Your task to perform on an android device: read, delete, or share a saved page in the chrome app Image 0: 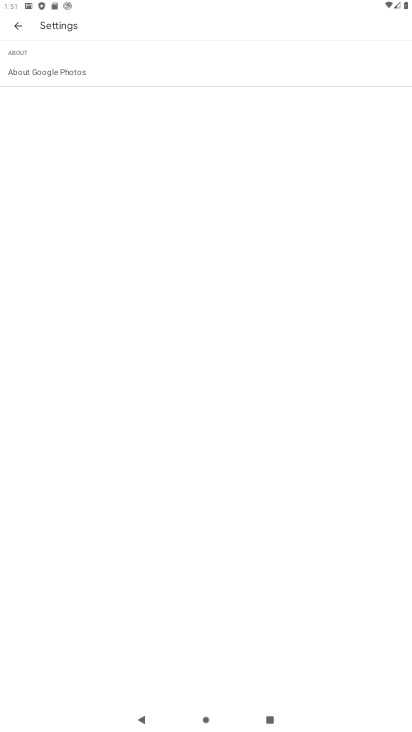
Step 0: press home button
Your task to perform on an android device: read, delete, or share a saved page in the chrome app Image 1: 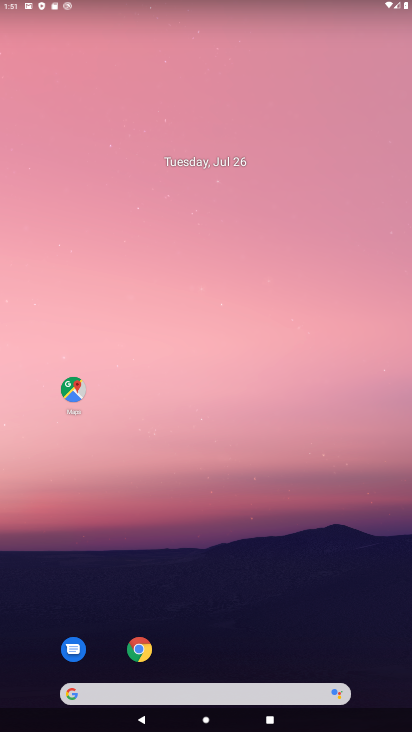
Step 1: click (136, 650)
Your task to perform on an android device: read, delete, or share a saved page in the chrome app Image 2: 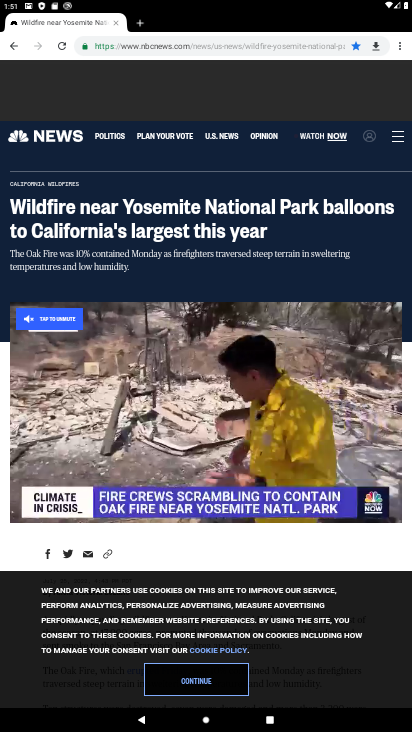
Step 2: click (401, 44)
Your task to perform on an android device: read, delete, or share a saved page in the chrome app Image 3: 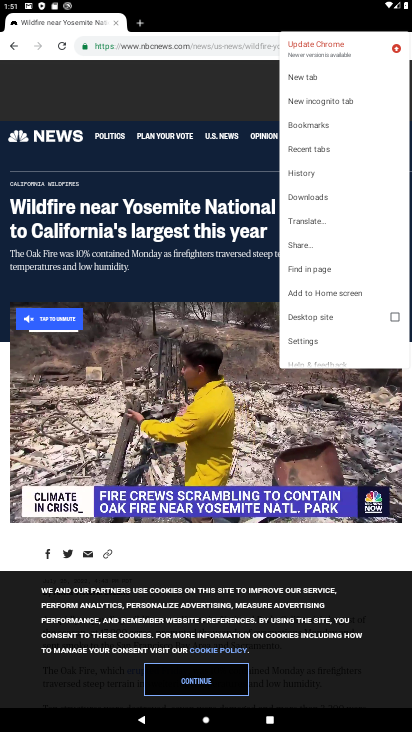
Step 3: click (317, 202)
Your task to perform on an android device: read, delete, or share a saved page in the chrome app Image 4: 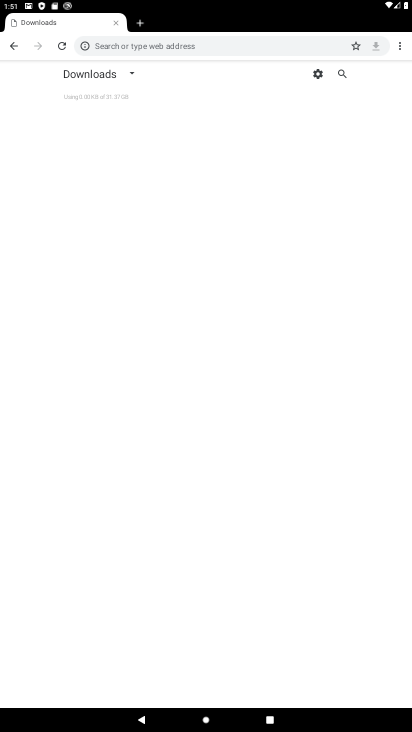
Step 4: click (130, 68)
Your task to perform on an android device: read, delete, or share a saved page in the chrome app Image 5: 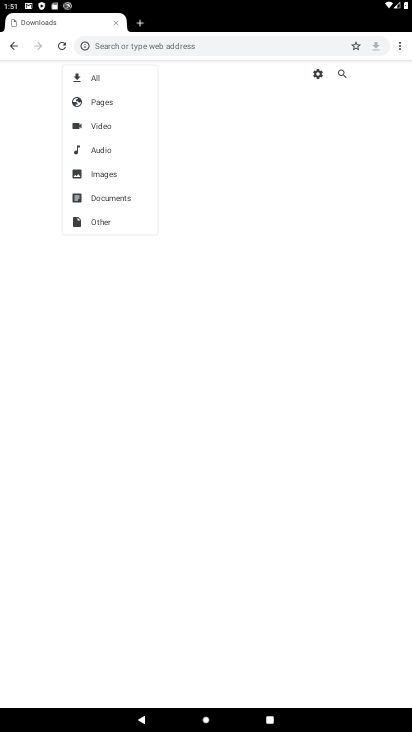
Step 5: click (102, 99)
Your task to perform on an android device: read, delete, or share a saved page in the chrome app Image 6: 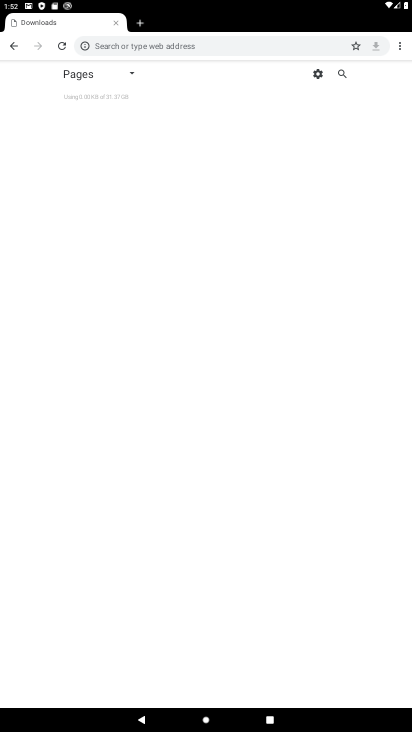
Step 6: click (128, 72)
Your task to perform on an android device: read, delete, or share a saved page in the chrome app Image 7: 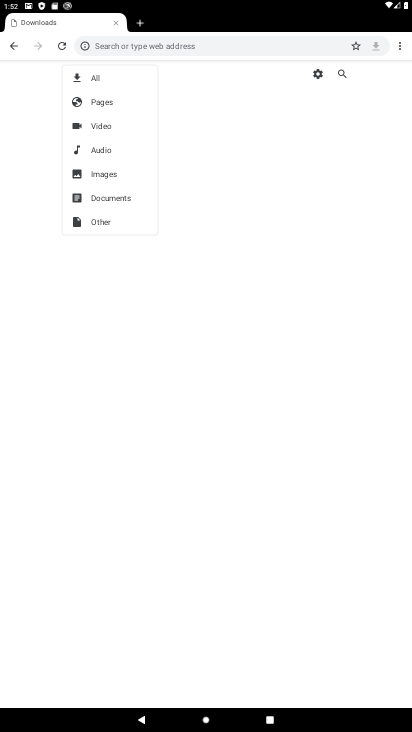
Step 7: click (98, 155)
Your task to perform on an android device: read, delete, or share a saved page in the chrome app Image 8: 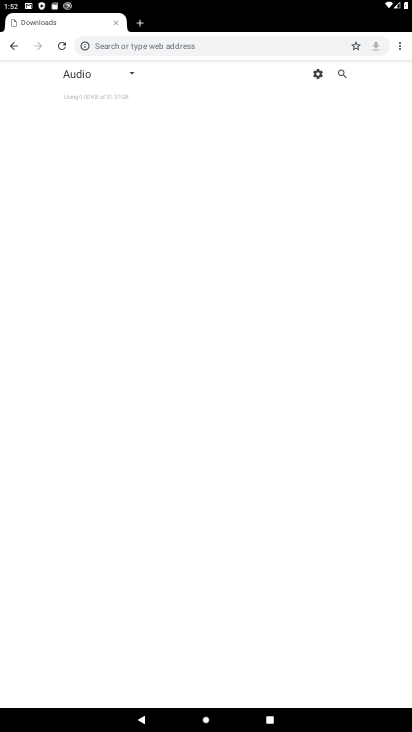
Step 8: click (105, 70)
Your task to perform on an android device: read, delete, or share a saved page in the chrome app Image 9: 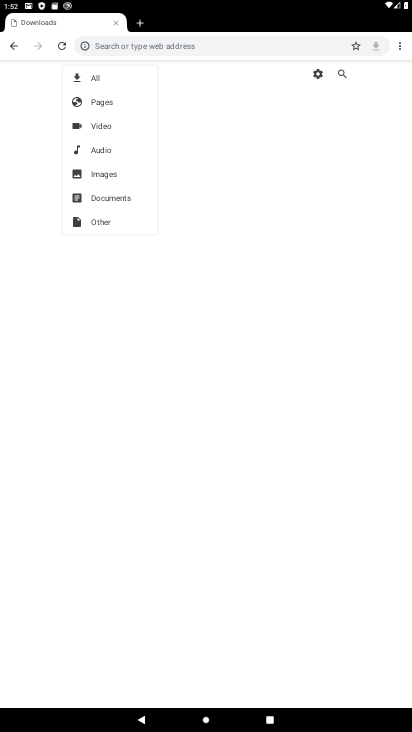
Step 9: click (97, 106)
Your task to perform on an android device: read, delete, or share a saved page in the chrome app Image 10: 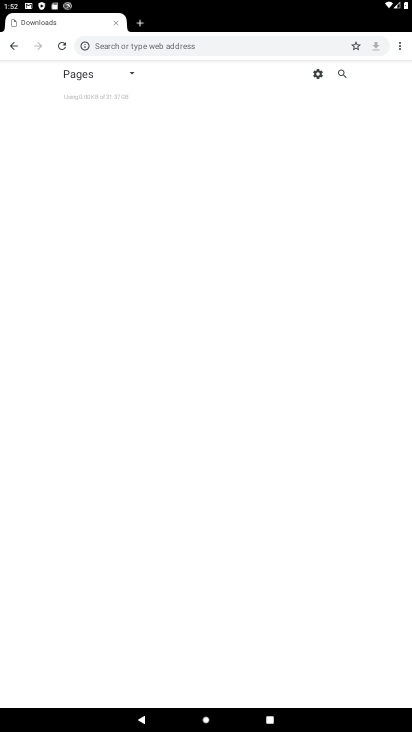
Step 10: click (129, 67)
Your task to perform on an android device: read, delete, or share a saved page in the chrome app Image 11: 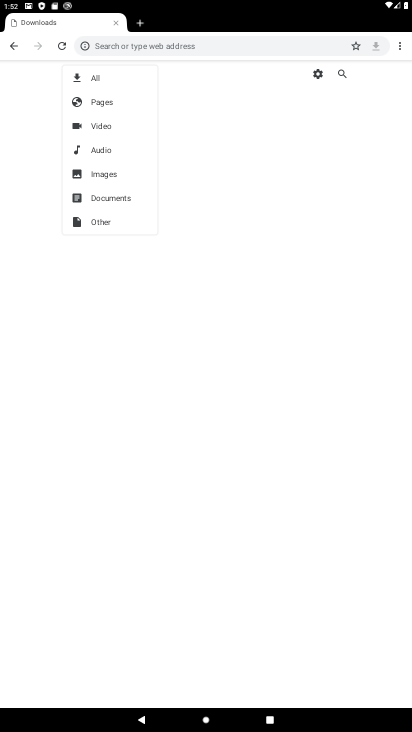
Step 11: click (107, 219)
Your task to perform on an android device: read, delete, or share a saved page in the chrome app Image 12: 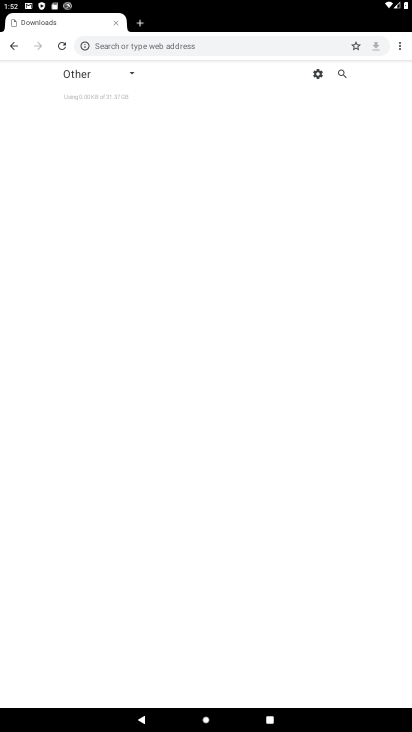
Step 12: task complete